Your task to perform on an android device: Search for razer blade on bestbuy.com, select the first entry, and add it to the cart. Image 0: 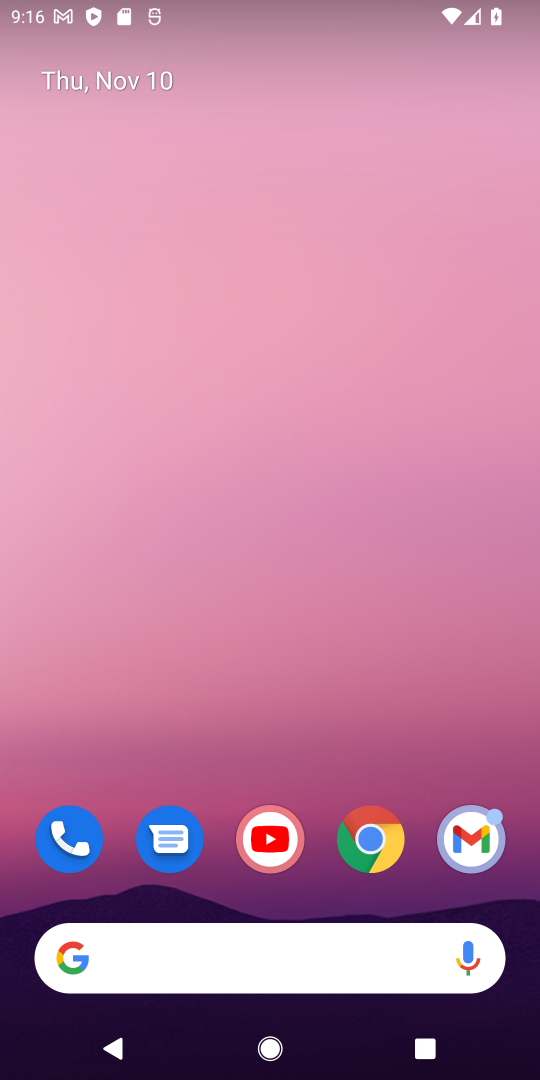
Step 0: click (379, 841)
Your task to perform on an android device: Search for razer blade on bestbuy.com, select the first entry, and add it to the cart. Image 1: 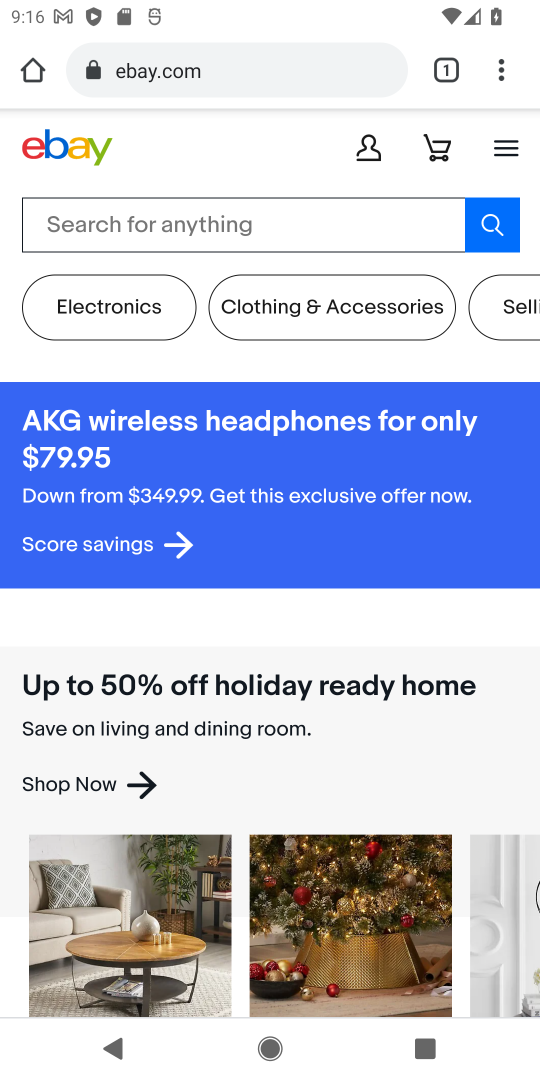
Step 1: click (272, 81)
Your task to perform on an android device: Search for razer blade on bestbuy.com, select the first entry, and add it to the cart. Image 2: 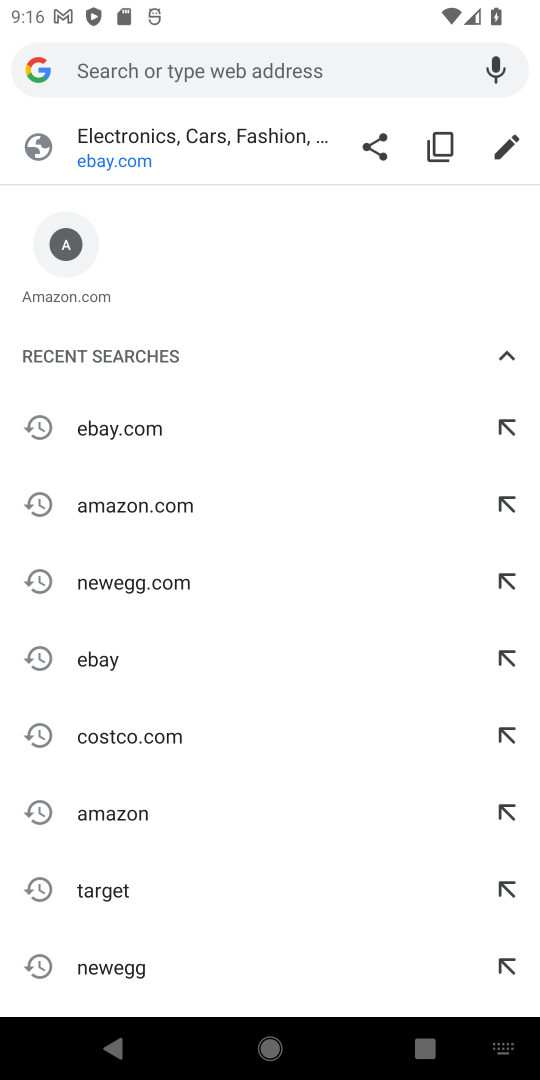
Step 2: type "bestbuy.com"
Your task to perform on an android device: Search for razer blade on bestbuy.com, select the first entry, and add it to the cart. Image 3: 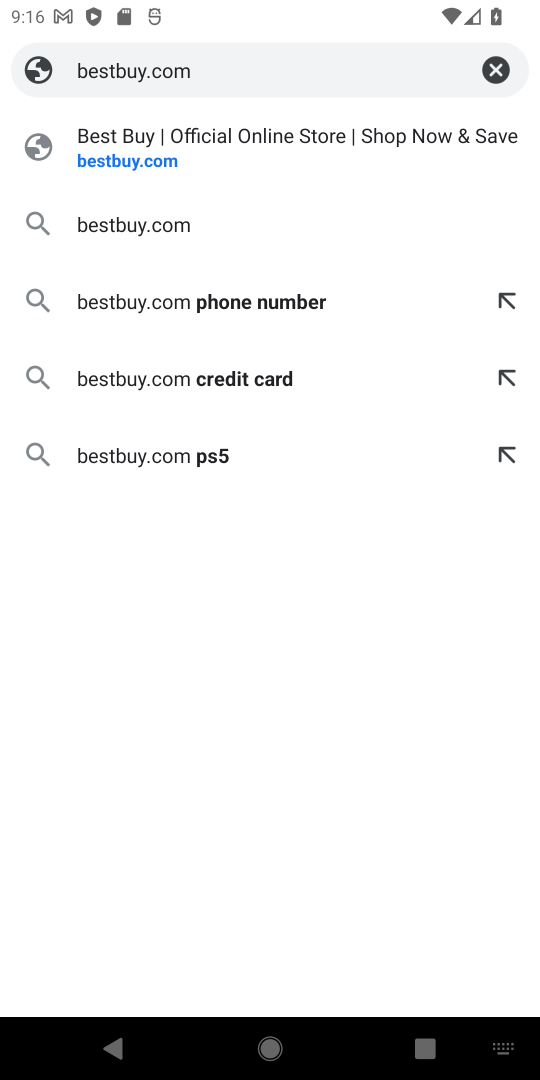
Step 3: click (149, 217)
Your task to perform on an android device: Search for razer blade on bestbuy.com, select the first entry, and add it to the cart. Image 4: 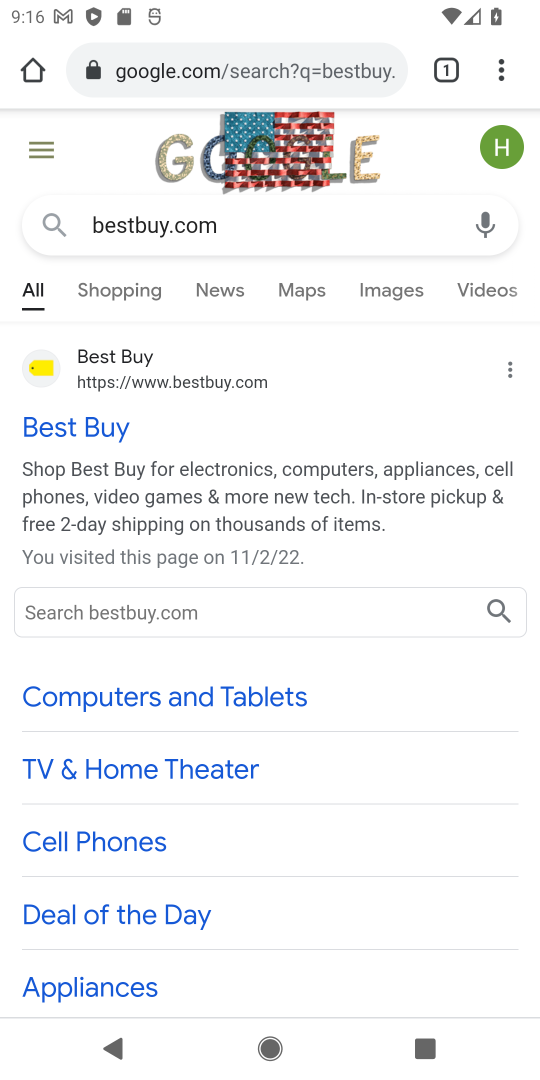
Step 4: drag from (406, 785) to (430, 392)
Your task to perform on an android device: Search for razer blade on bestbuy.com, select the first entry, and add it to the cart. Image 5: 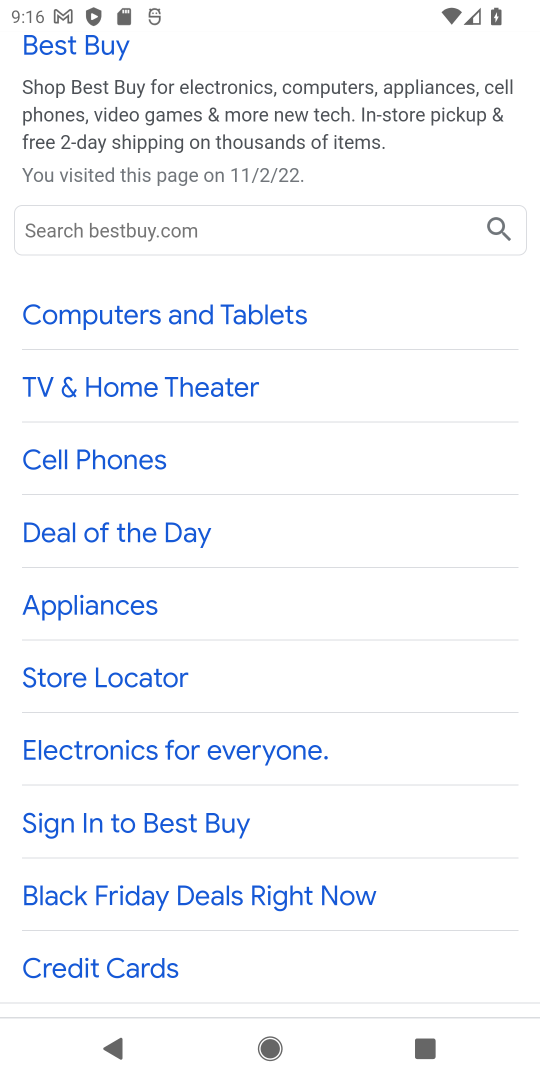
Step 5: drag from (387, 838) to (425, 377)
Your task to perform on an android device: Search for razer blade on bestbuy.com, select the first entry, and add it to the cart. Image 6: 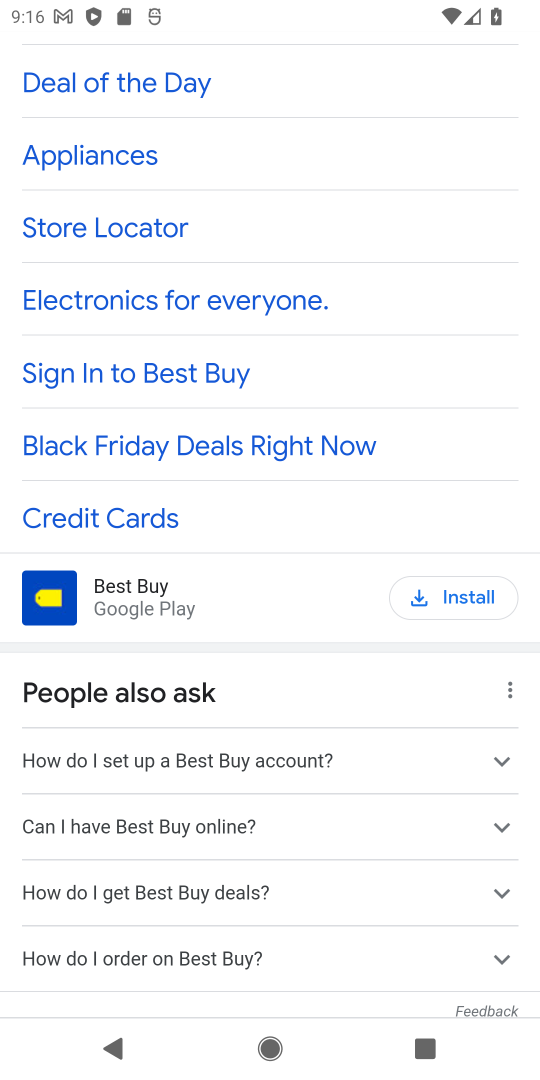
Step 6: drag from (216, 621) to (319, 317)
Your task to perform on an android device: Search for razer blade on bestbuy.com, select the first entry, and add it to the cart. Image 7: 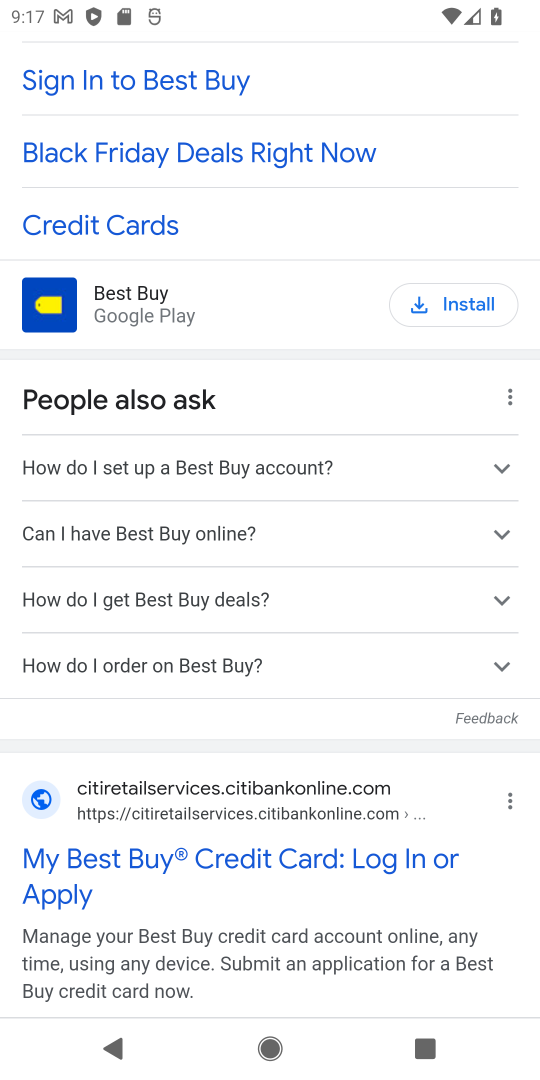
Step 7: drag from (338, 222) to (459, 859)
Your task to perform on an android device: Search for razer blade on bestbuy.com, select the first entry, and add it to the cart. Image 8: 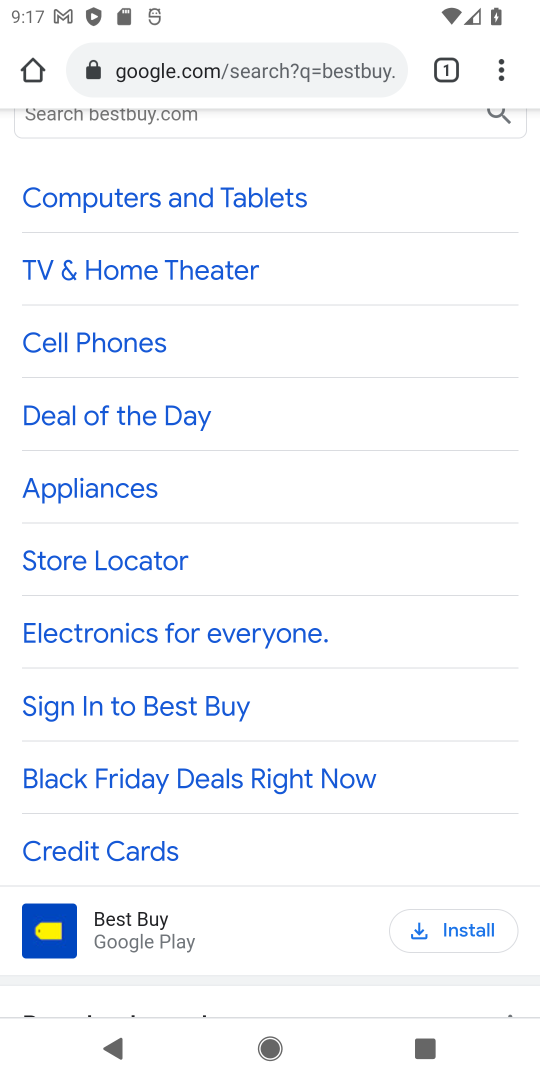
Step 8: drag from (351, 183) to (424, 687)
Your task to perform on an android device: Search for razer blade on bestbuy.com, select the first entry, and add it to the cart. Image 9: 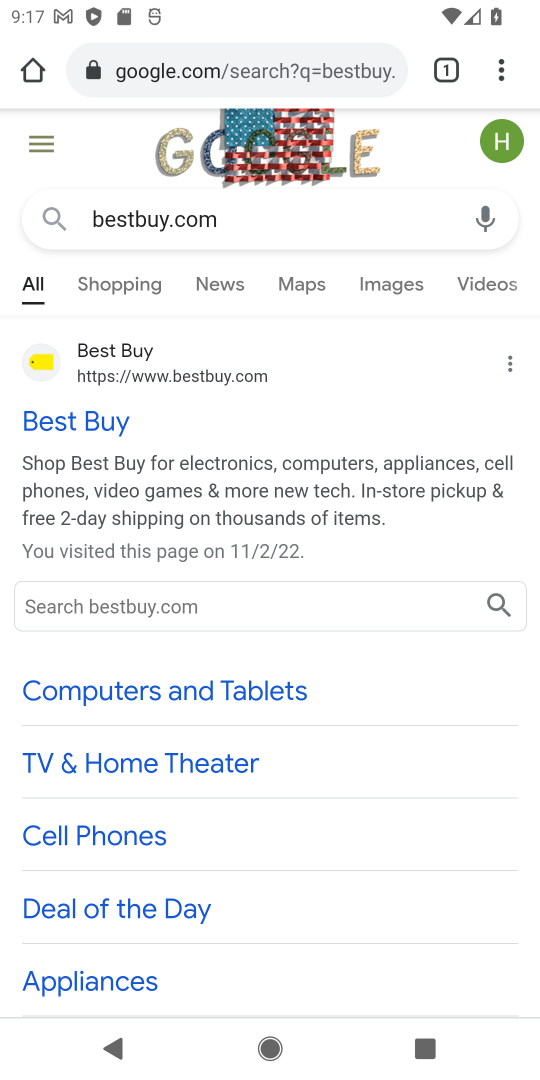
Step 9: click (177, 373)
Your task to perform on an android device: Search for razer blade on bestbuy.com, select the first entry, and add it to the cart. Image 10: 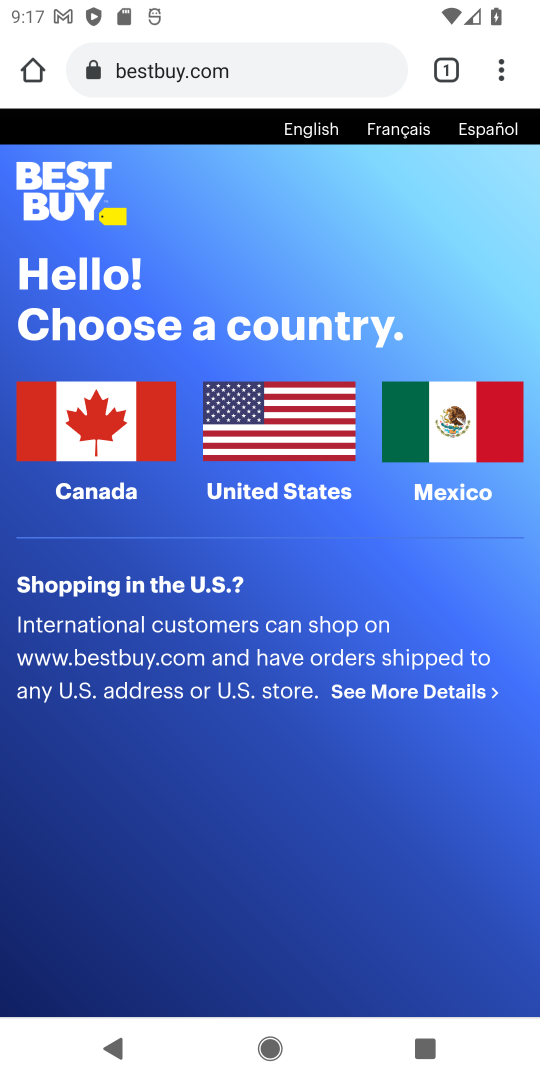
Step 10: click (292, 419)
Your task to perform on an android device: Search for razer blade on bestbuy.com, select the first entry, and add it to the cart. Image 11: 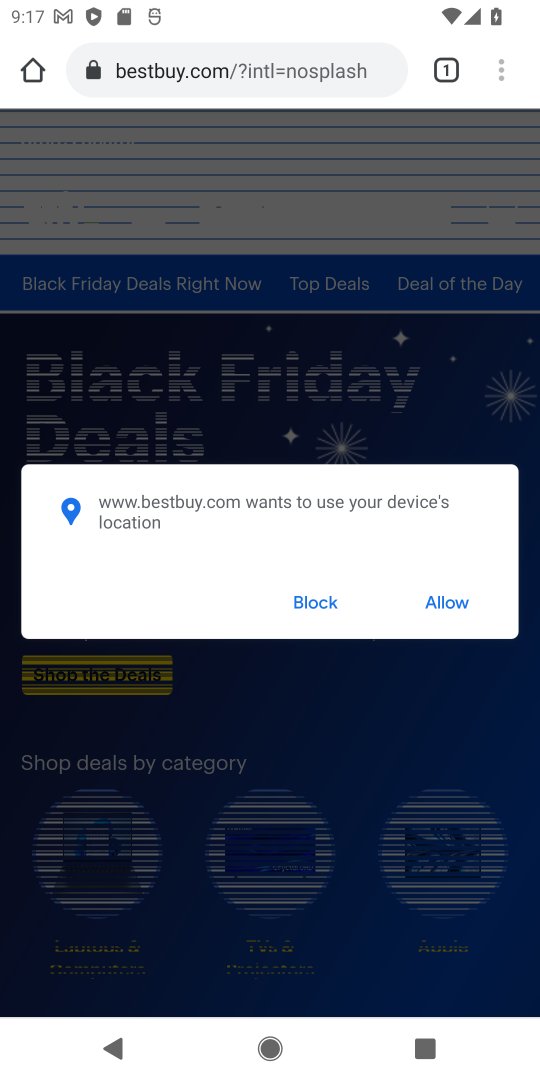
Step 11: click (316, 601)
Your task to perform on an android device: Search for razer blade on bestbuy.com, select the first entry, and add it to the cart. Image 12: 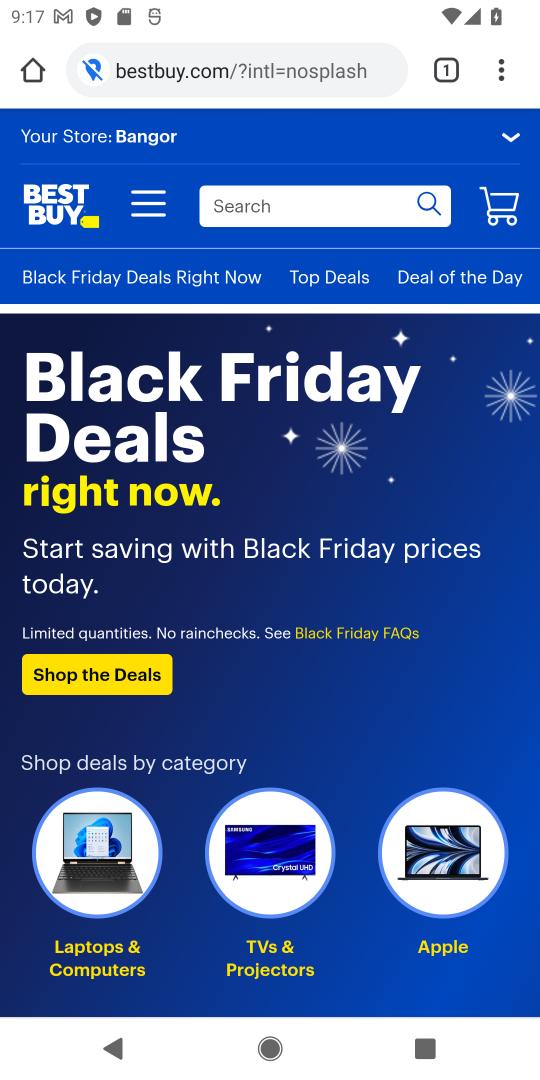
Step 12: click (360, 209)
Your task to perform on an android device: Search for razer blade on bestbuy.com, select the first entry, and add it to the cart. Image 13: 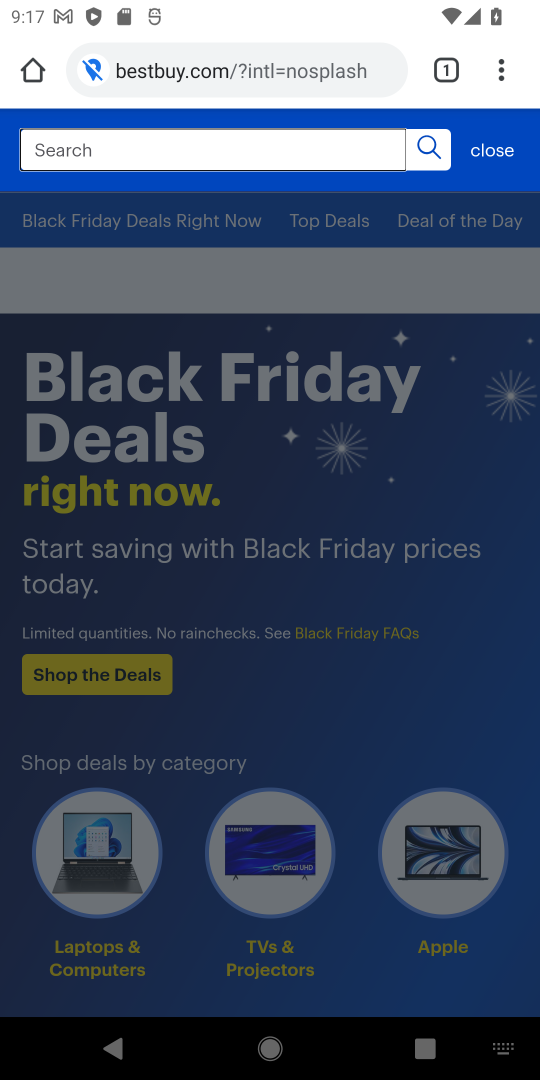
Step 13: type "razer blade"
Your task to perform on an android device: Search for razer blade on bestbuy.com, select the first entry, and add it to the cart. Image 14: 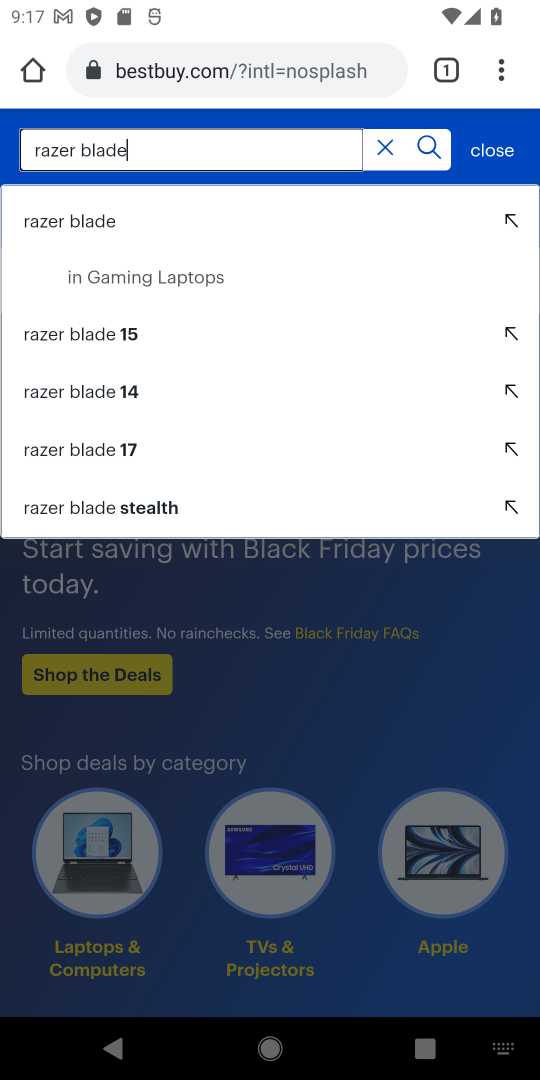
Step 14: click (79, 219)
Your task to perform on an android device: Search for razer blade on bestbuy.com, select the first entry, and add it to the cart. Image 15: 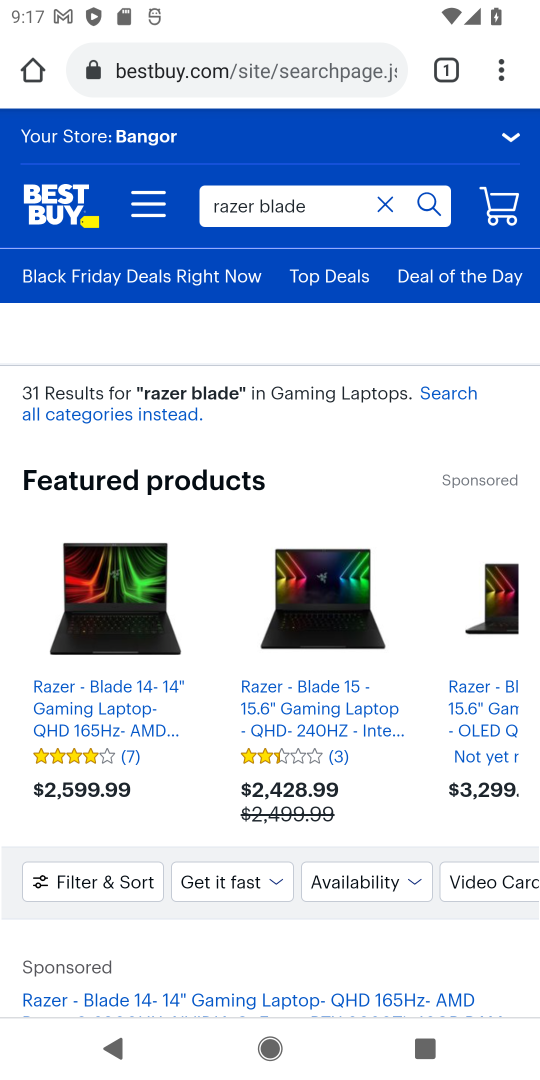
Step 15: drag from (386, 803) to (385, 295)
Your task to perform on an android device: Search for razer blade on bestbuy.com, select the first entry, and add it to the cart. Image 16: 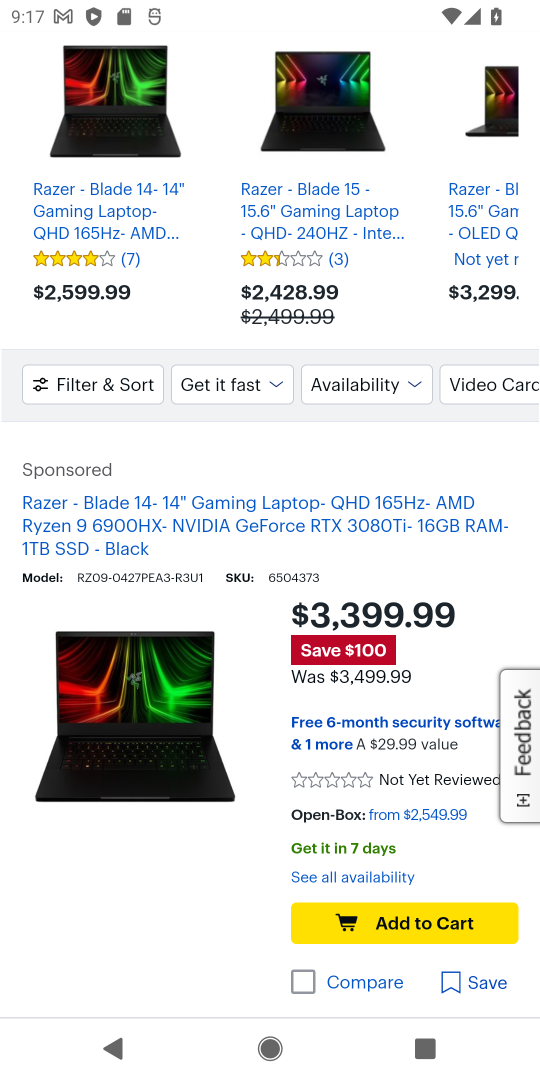
Step 16: click (181, 713)
Your task to perform on an android device: Search for razer blade on bestbuy.com, select the first entry, and add it to the cart. Image 17: 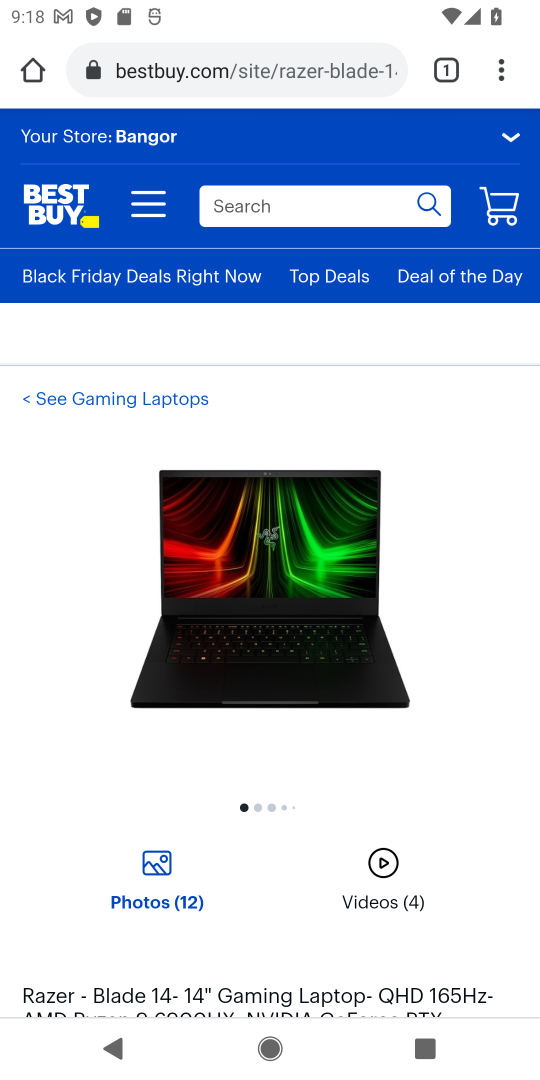
Step 17: drag from (459, 752) to (492, 127)
Your task to perform on an android device: Search for razer blade on bestbuy.com, select the first entry, and add it to the cart. Image 18: 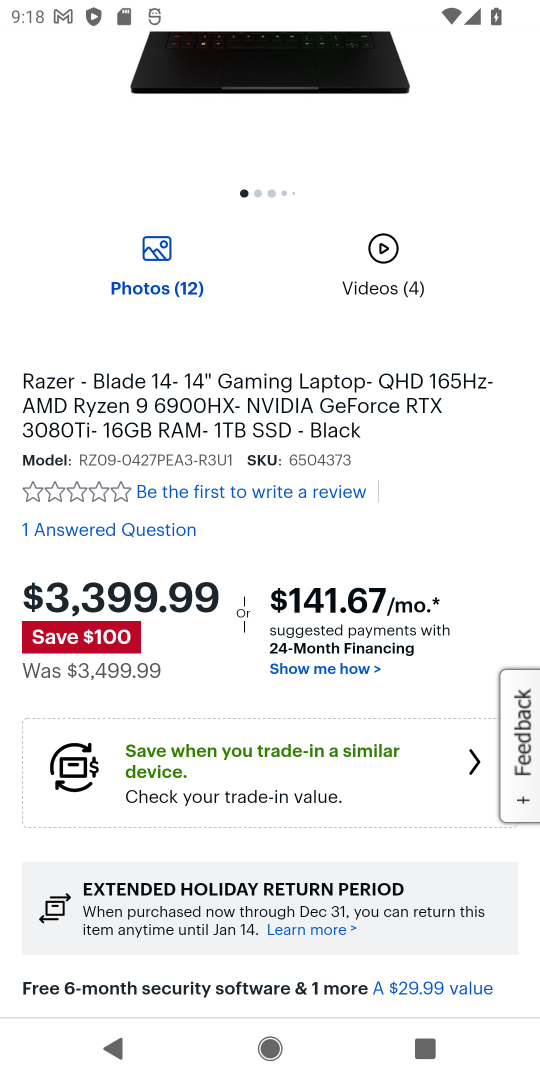
Step 18: drag from (414, 812) to (406, 245)
Your task to perform on an android device: Search for razer blade on bestbuy.com, select the first entry, and add it to the cart. Image 19: 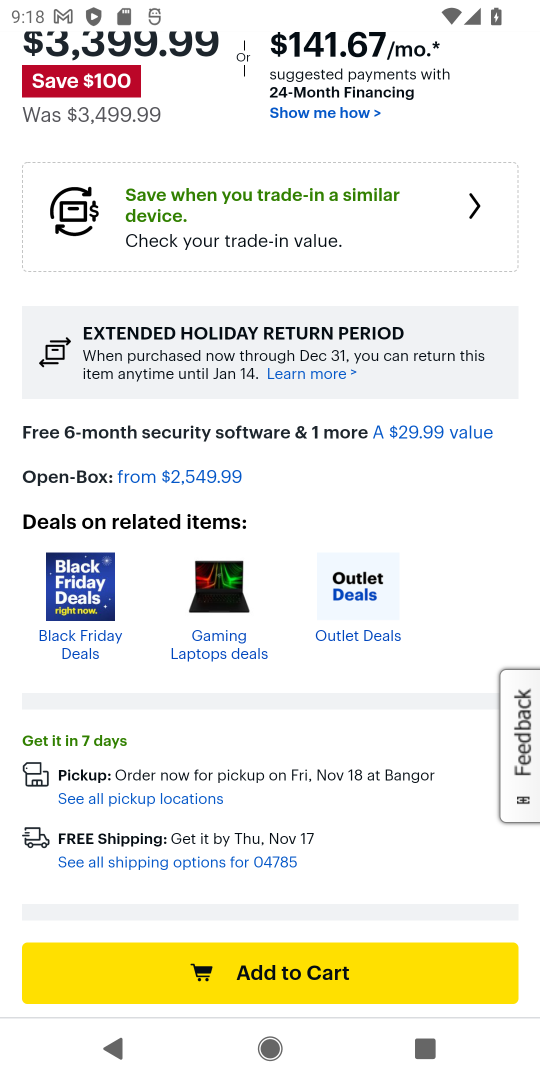
Step 19: click (286, 980)
Your task to perform on an android device: Search for razer blade on bestbuy.com, select the first entry, and add it to the cart. Image 20: 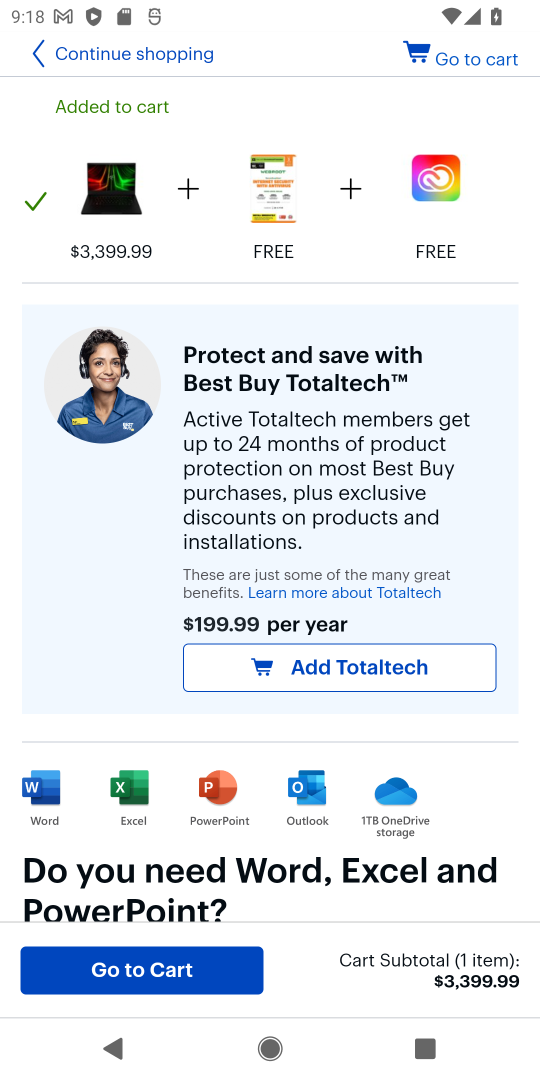
Step 20: task complete